Your task to perform on an android device: turn off javascript in the chrome app Image 0: 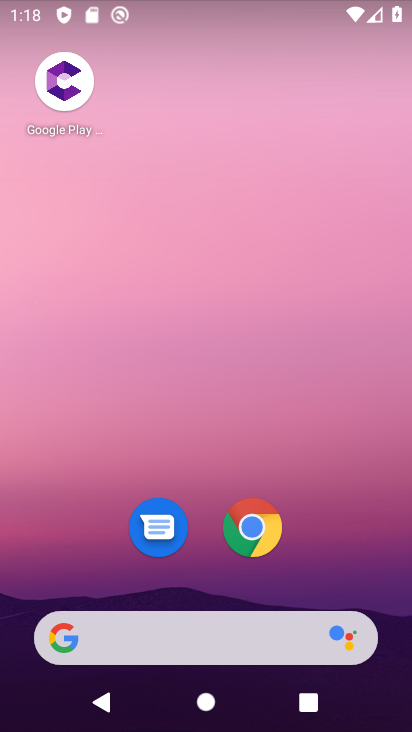
Step 0: click (275, 536)
Your task to perform on an android device: turn off javascript in the chrome app Image 1: 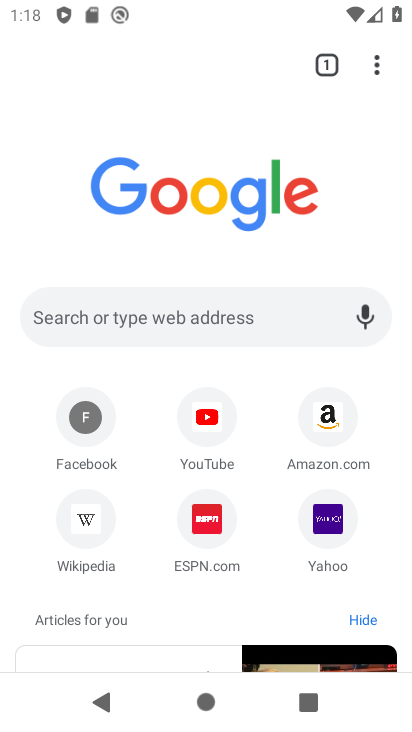
Step 1: drag from (396, 67) to (235, 539)
Your task to perform on an android device: turn off javascript in the chrome app Image 2: 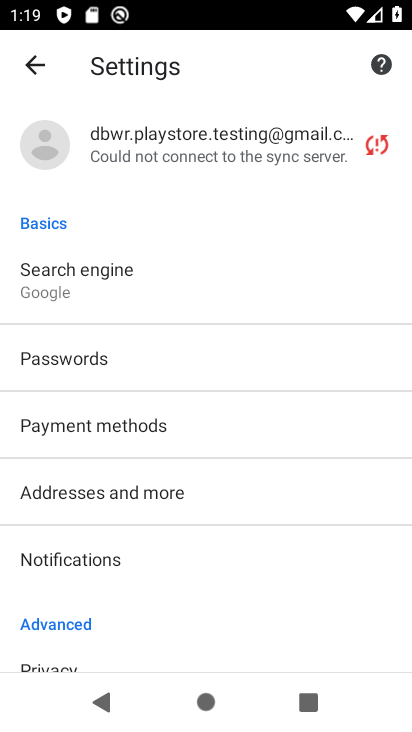
Step 2: drag from (209, 621) to (327, 271)
Your task to perform on an android device: turn off javascript in the chrome app Image 3: 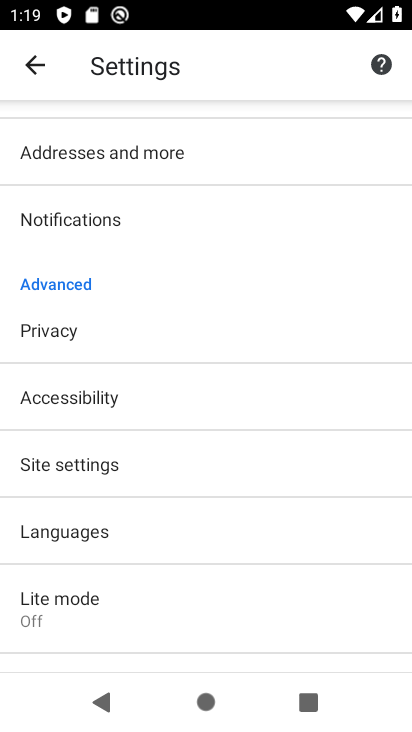
Step 3: click (186, 467)
Your task to perform on an android device: turn off javascript in the chrome app Image 4: 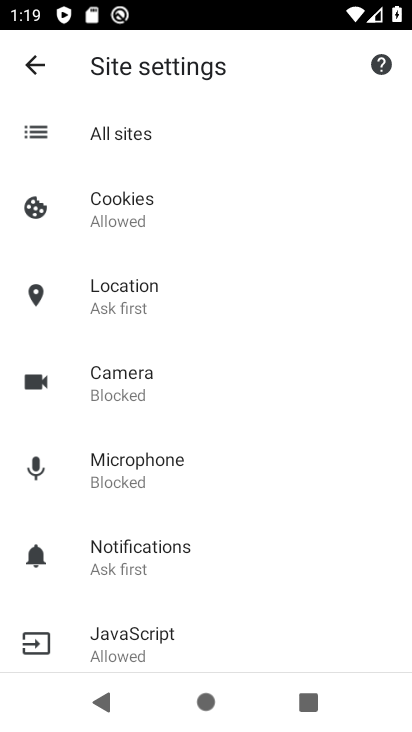
Step 4: click (189, 647)
Your task to perform on an android device: turn off javascript in the chrome app Image 5: 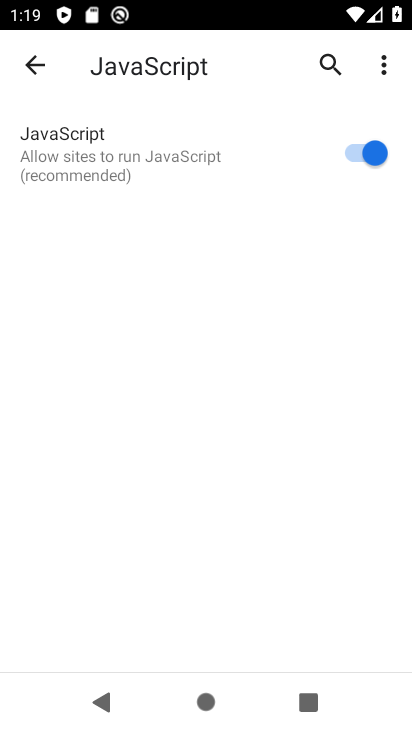
Step 5: click (357, 152)
Your task to perform on an android device: turn off javascript in the chrome app Image 6: 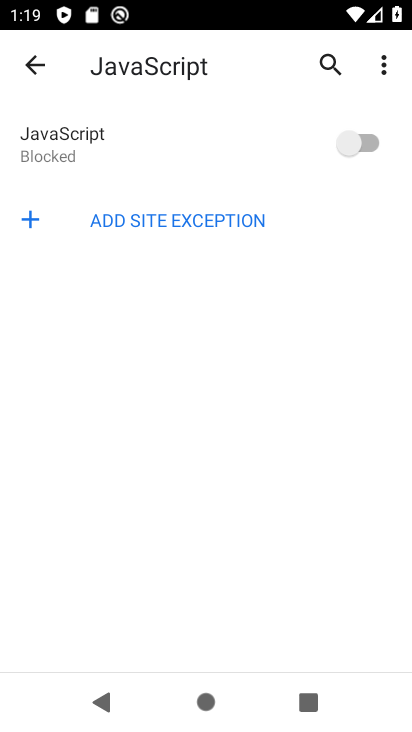
Step 6: task complete